Your task to perform on an android device: Go to battery settings Image 0: 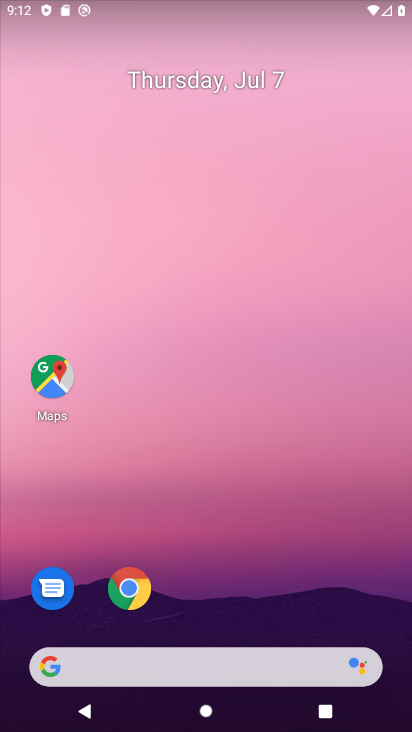
Step 0: click (251, 267)
Your task to perform on an android device: Go to battery settings Image 1: 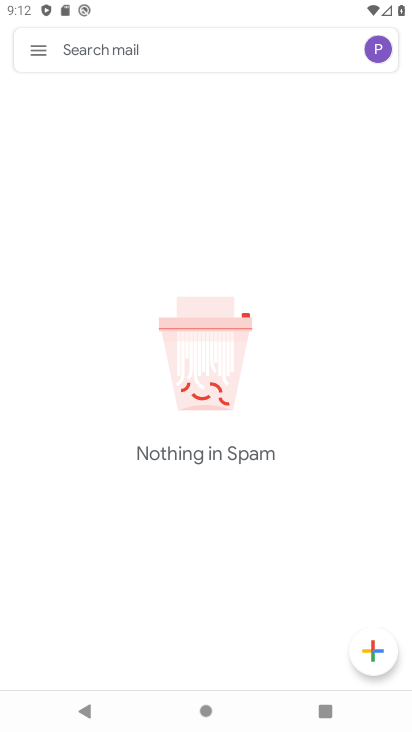
Step 1: press back button
Your task to perform on an android device: Go to battery settings Image 2: 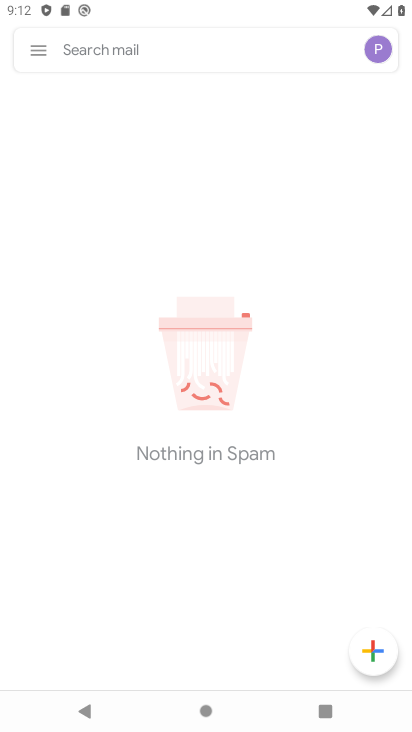
Step 2: press back button
Your task to perform on an android device: Go to battery settings Image 3: 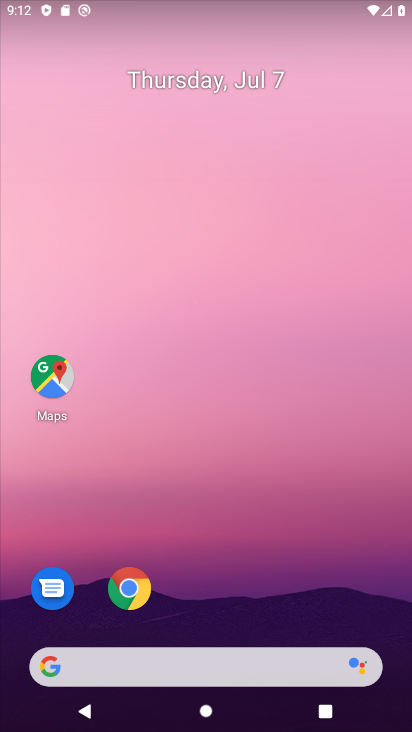
Step 3: drag from (244, 678) to (153, 73)
Your task to perform on an android device: Go to battery settings Image 4: 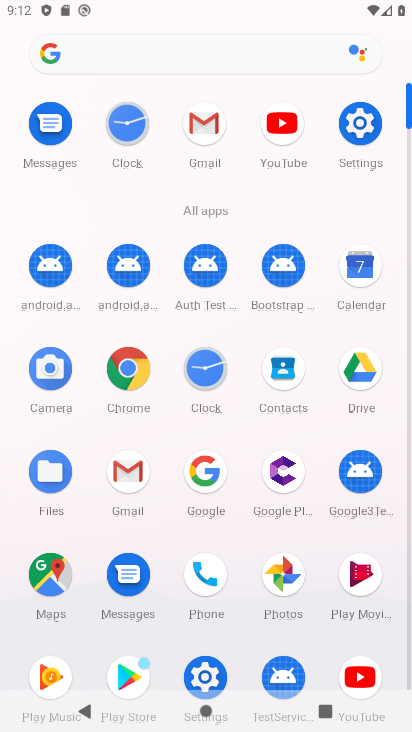
Step 4: click (358, 128)
Your task to perform on an android device: Go to battery settings Image 5: 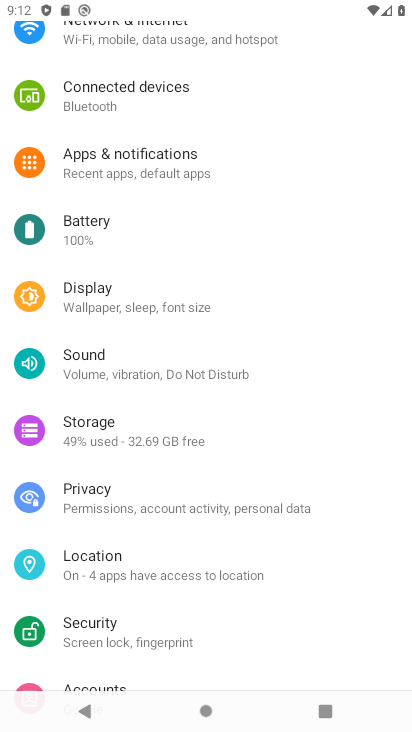
Step 5: click (79, 222)
Your task to perform on an android device: Go to battery settings Image 6: 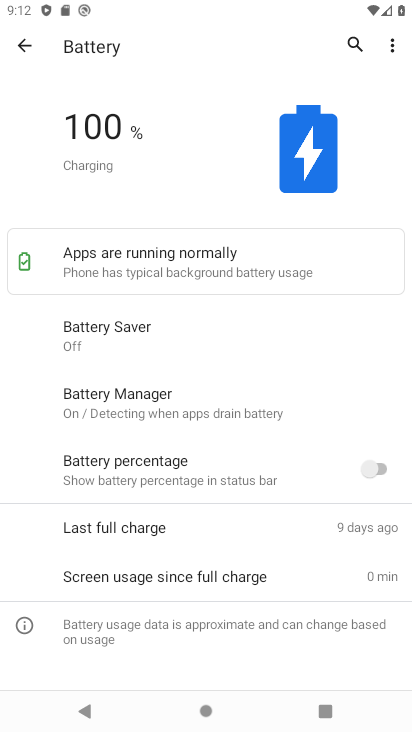
Step 6: task complete